Your task to perform on an android device: Open Google Chrome and open the bookmarks view Image 0: 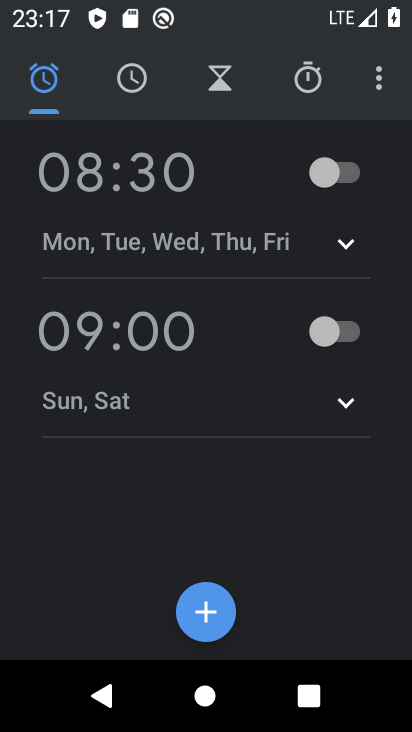
Step 0: press home button
Your task to perform on an android device: Open Google Chrome and open the bookmarks view Image 1: 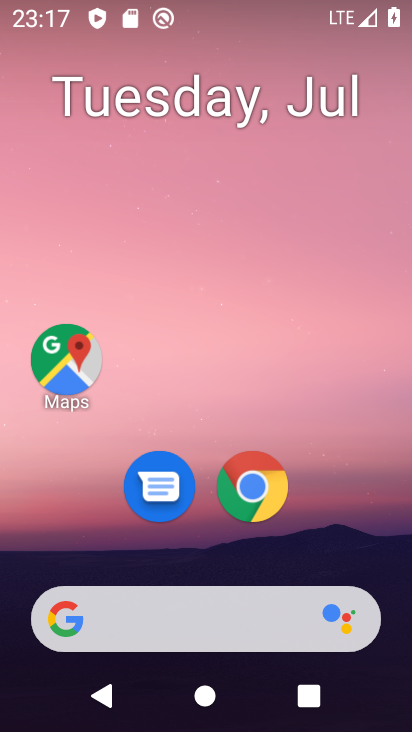
Step 1: drag from (356, 360) to (347, 215)
Your task to perform on an android device: Open Google Chrome and open the bookmarks view Image 2: 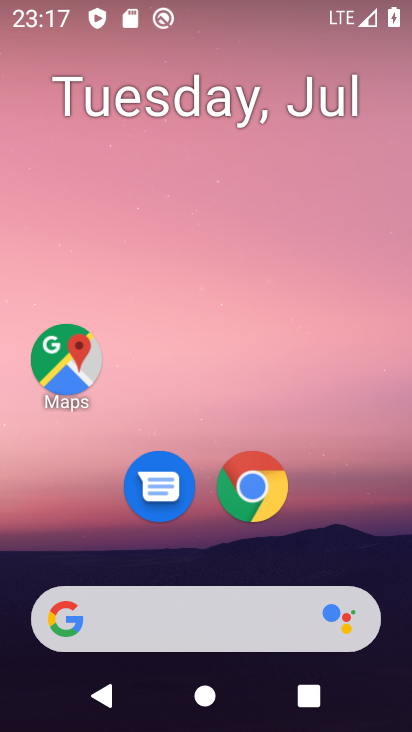
Step 2: drag from (375, 476) to (296, 150)
Your task to perform on an android device: Open Google Chrome and open the bookmarks view Image 3: 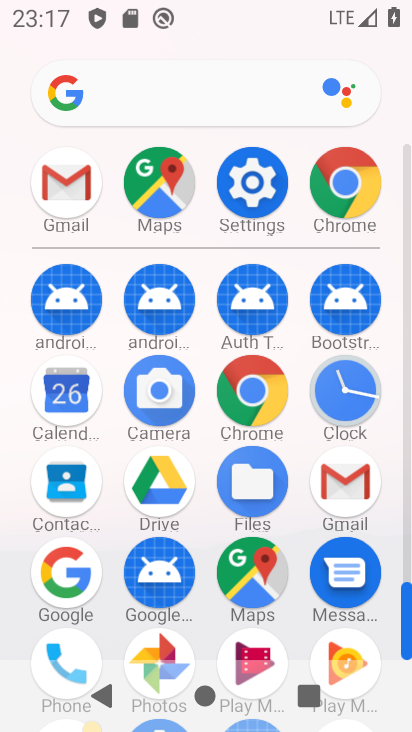
Step 3: click (250, 409)
Your task to perform on an android device: Open Google Chrome and open the bookmarks view Image 4: 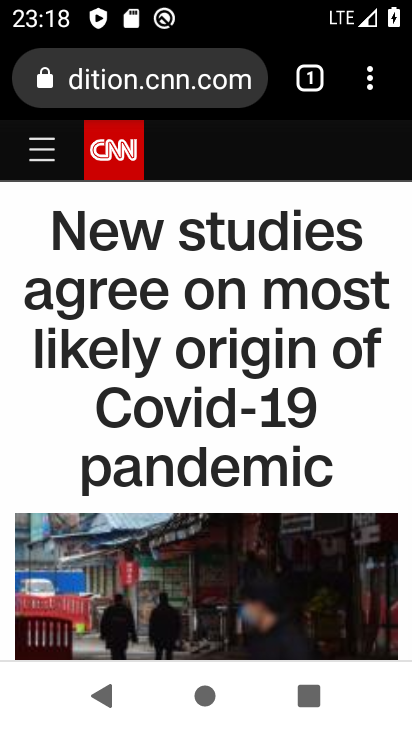
Step 4: click (370, 83)
Your task to perform on an android device: Open Google Chrome and open the bookmarks view Image 5: 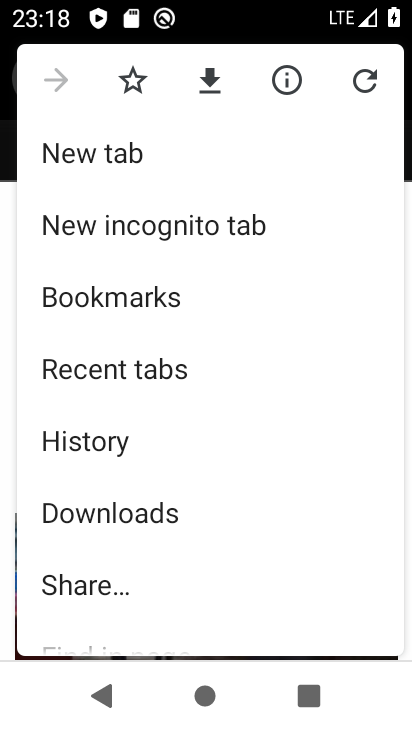
Step 5: click (163, 302)
Your task to perform on an android device: Open Google Chrome and open the bookmarks view Image 6: 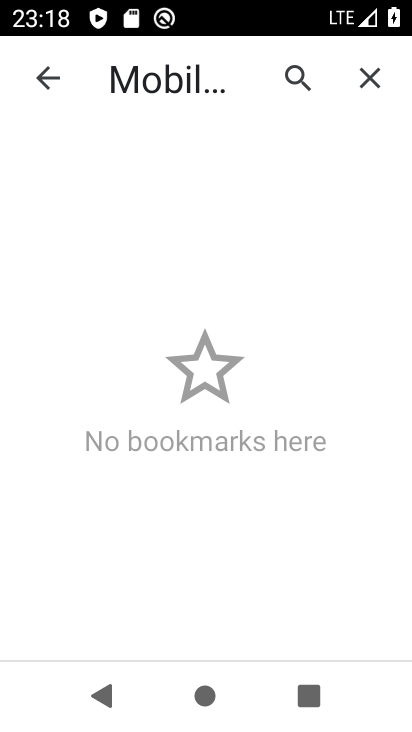
Step 6: task complete